Your task to perform on an android device: Go to CNN.com Image 0: 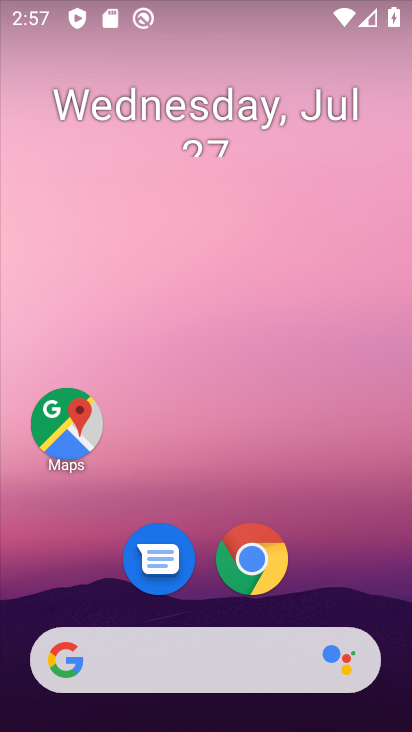
Step 0: click (256, 550)
Your task to perform on an android device: Go to CNN.com Image 1: 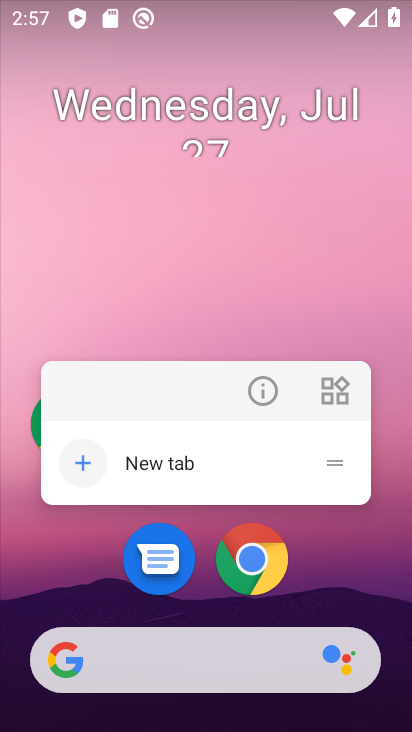
Step 1: click (263, 545)
Your task to perform on an android device: Go to CNN.com Image 2: 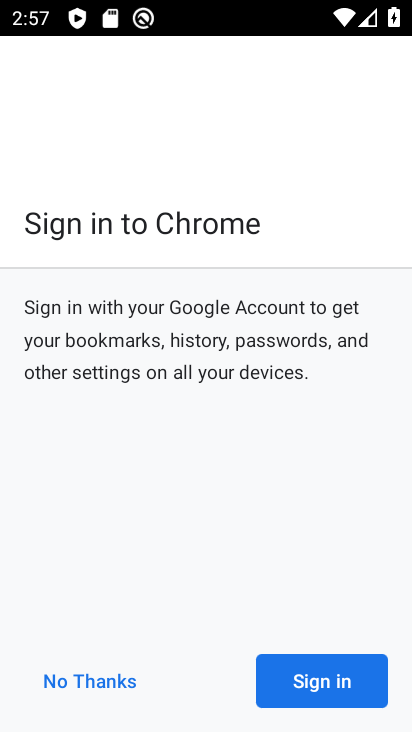
Step 2: click (308, 681)
Your task to perform on an android device: Go to CNN.com Image 3: 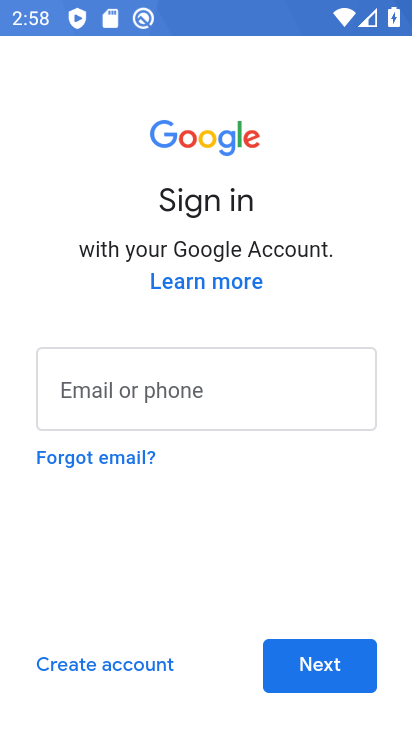
Step 3: press back button
Your task to perform on an android device: Go to CNN.com Image 4: 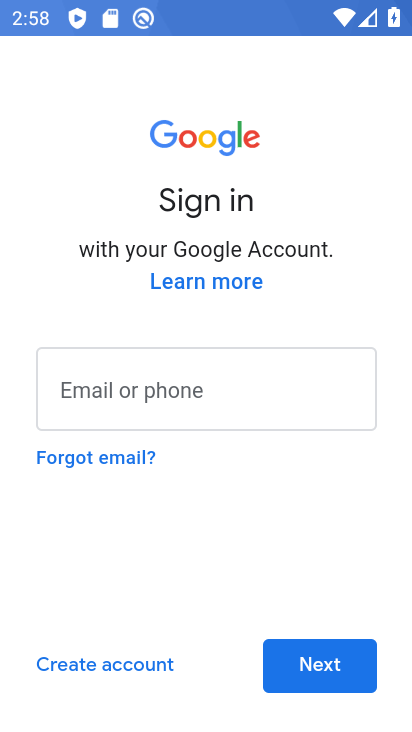
Step 4: press back button
Your task to perform on an android device: Go to CNN.com Image 5: 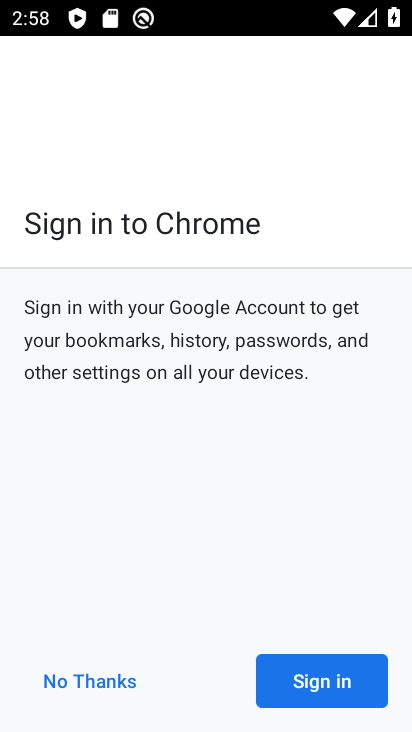
Step 5: click (97, 684)
Your task to perform on an android device: Go to CNN.com Image 6: 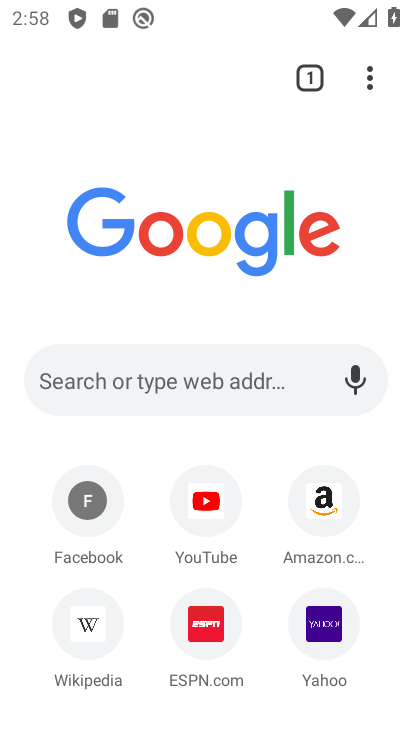
Step 6: click (173, 386)
Your task to perform on an android device: Go to CNN.com Image 7: 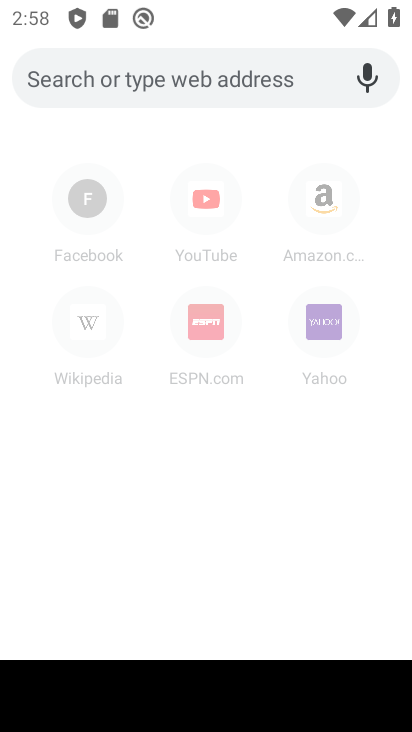
Step 7: type "cnn.com"
Your task to perform on an android device: Go to CNN.com Image 8: 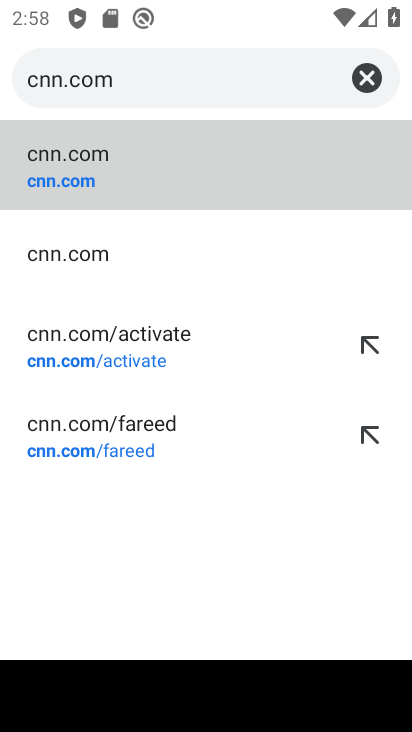
Step 8: click (249, 178)
Your task to perform on an android device: Go to CNN.com Image 9: 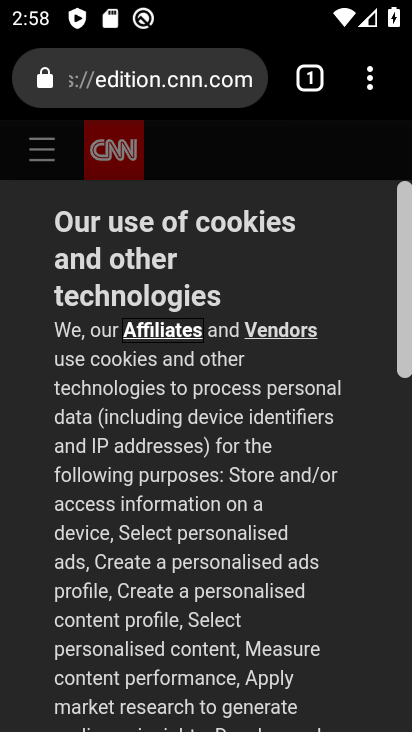
Step 9: task complete